Your task to perform on an android device: Open settings Image 0: 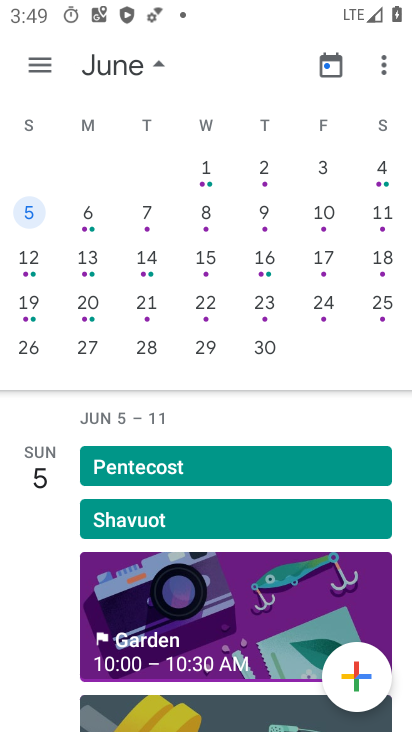
Step 0: press home button
Your task to perform on an android device: Open settings Image 1: 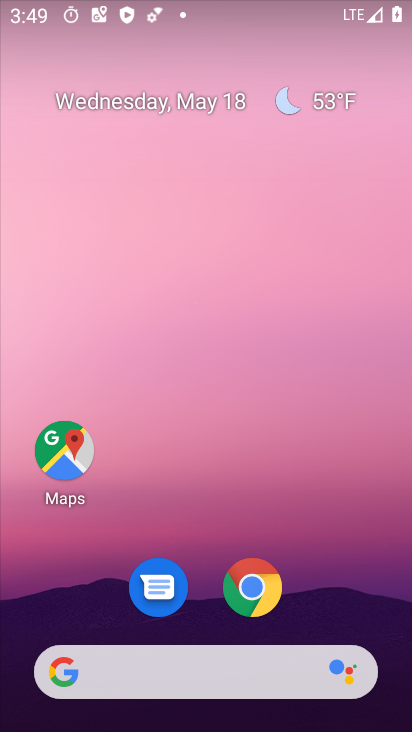
Step 1: drag from (251, 697) to (249, 140)
Your task to perform on an android device: Open settings Image 2: 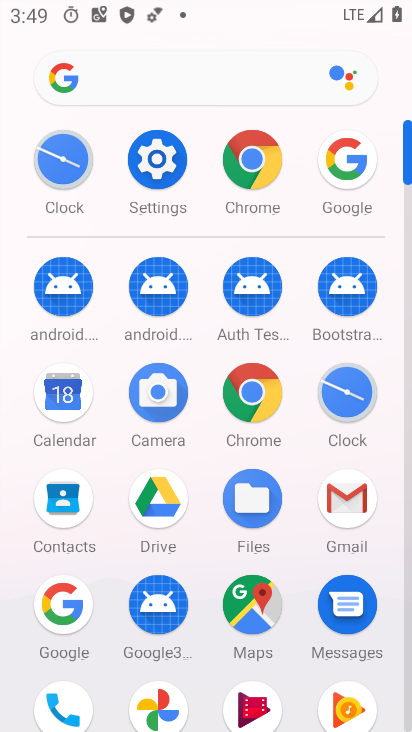
Step 2: click (171, 187)
Your task to perform on an android device: Open settings Image 3: 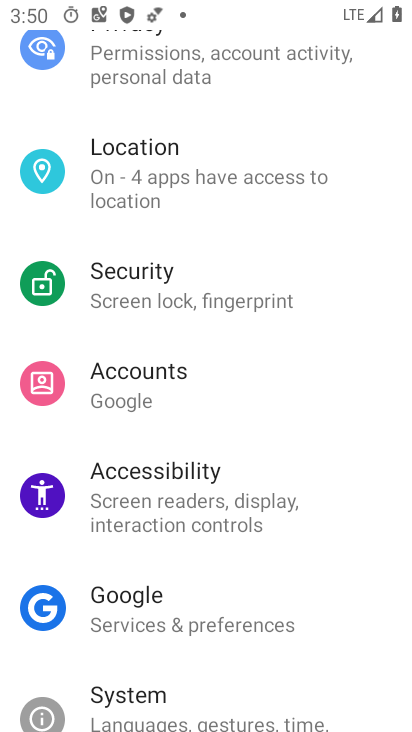
Step 3: task complete